Your task to perform on an android device: install app "AliExpress" Image 0: 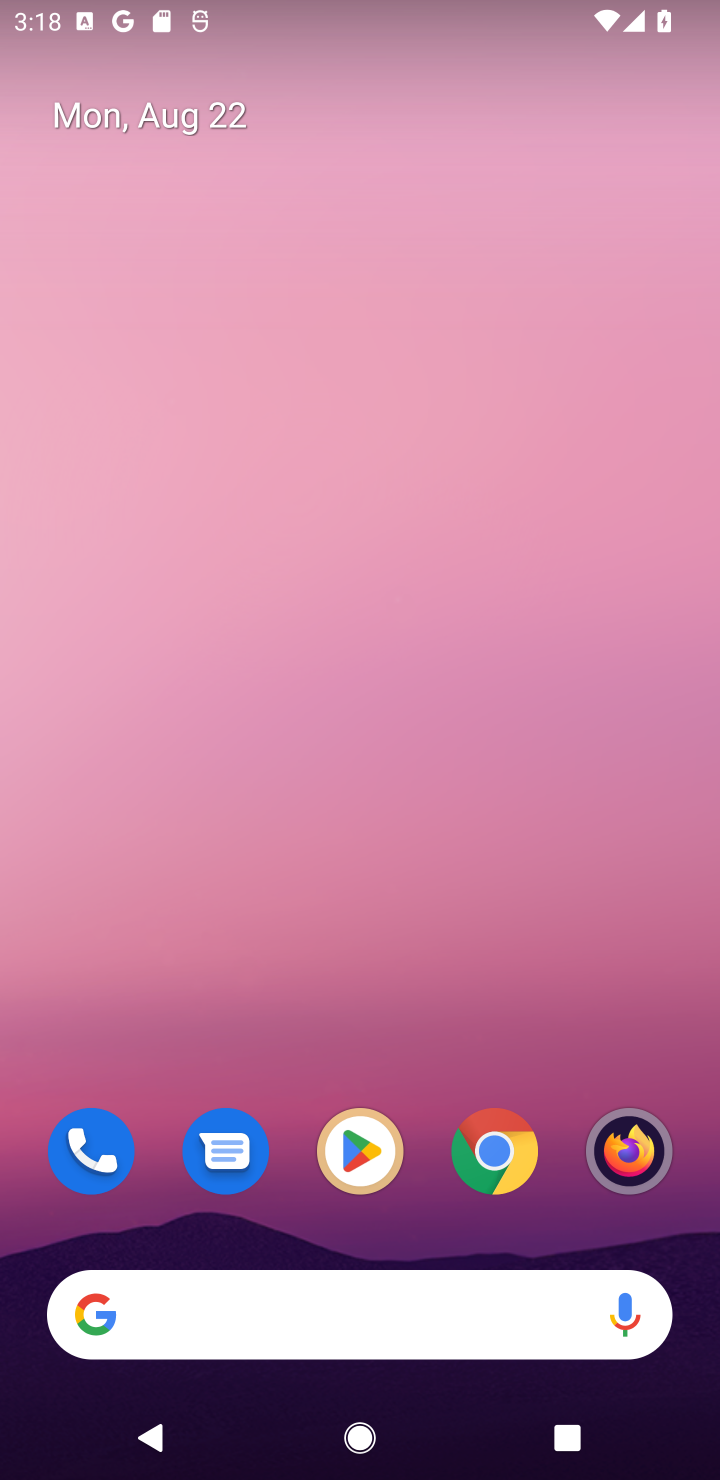
Step 0: press home button
Your task to perform on an android device: install app "AliExpress" Image 1: 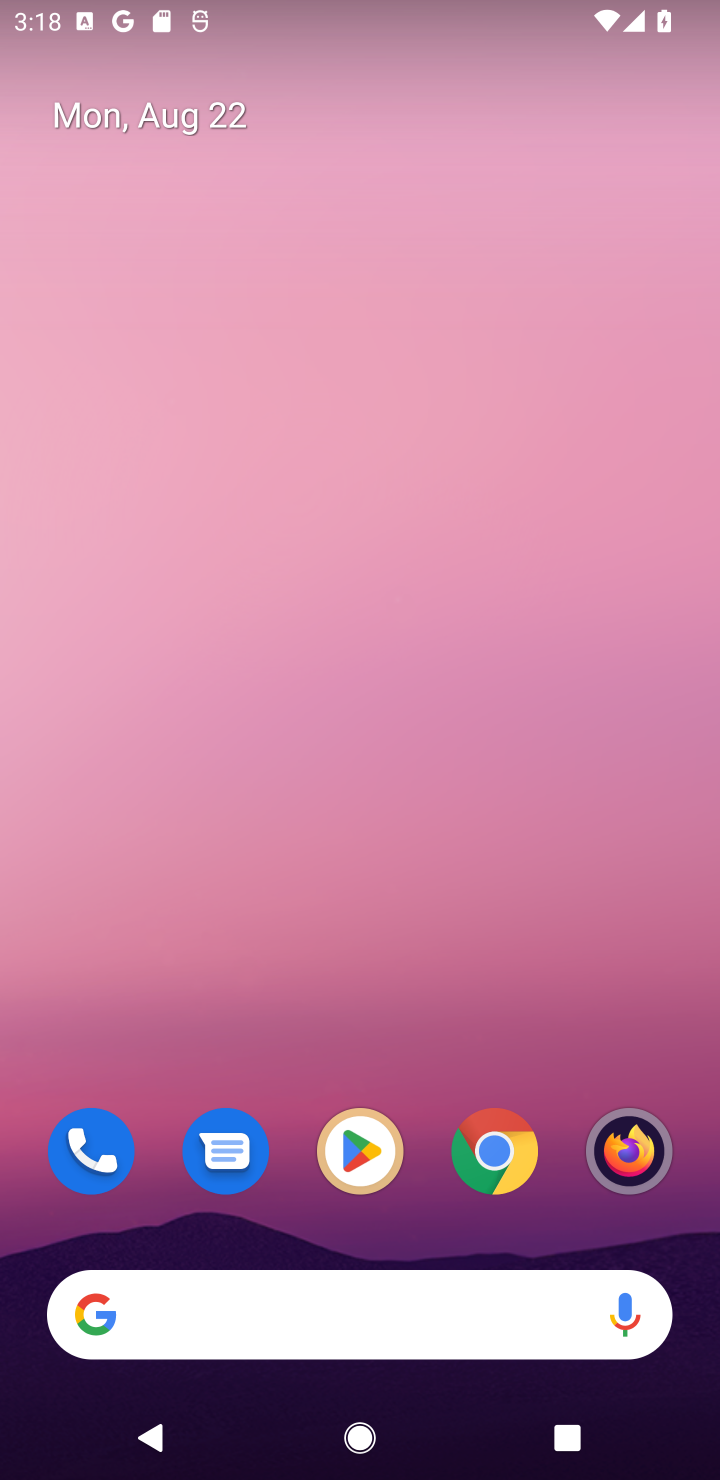
Step 1: click (348, 1148)
Your task to perform on an android device: install app "AliExpress" Image 2: 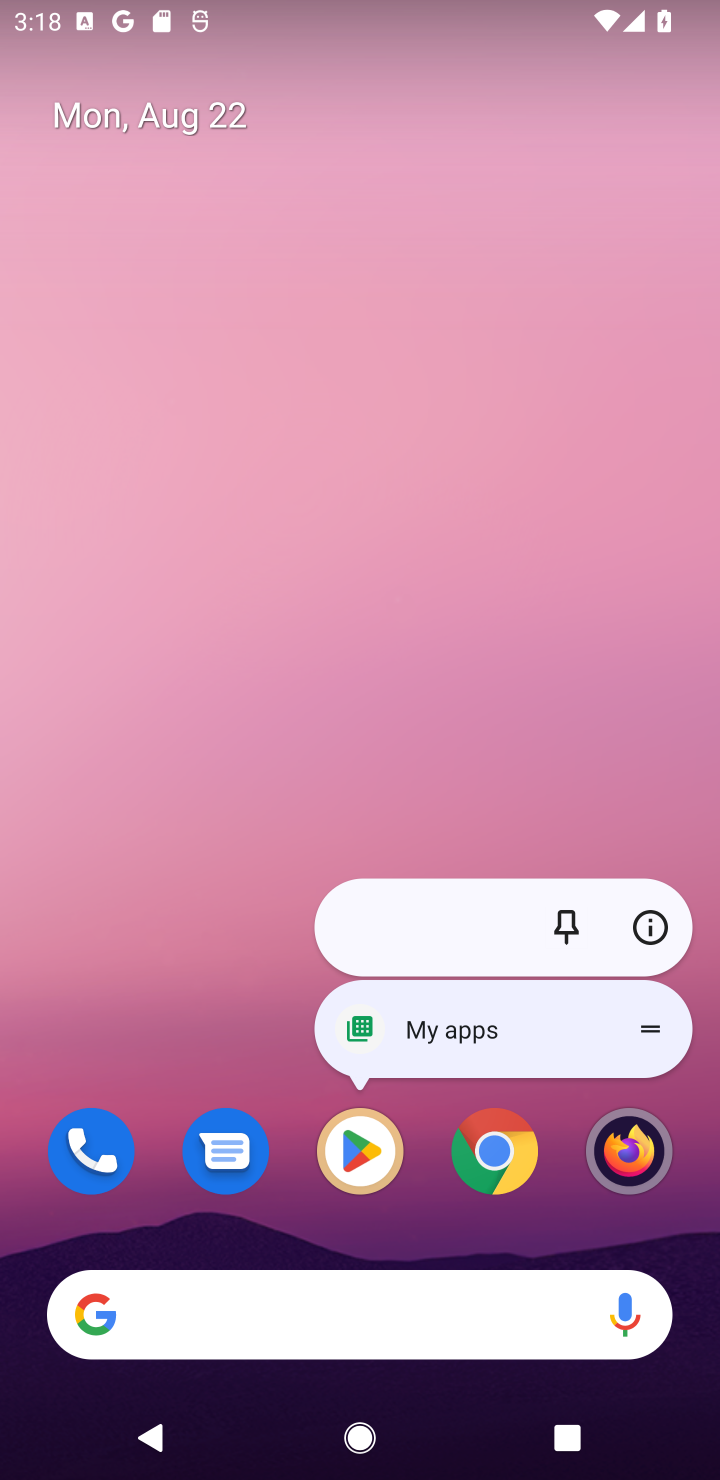
Step 2: click (348, 1155)
Your task to perform on an android device: install app "AliExpress" Image 3: 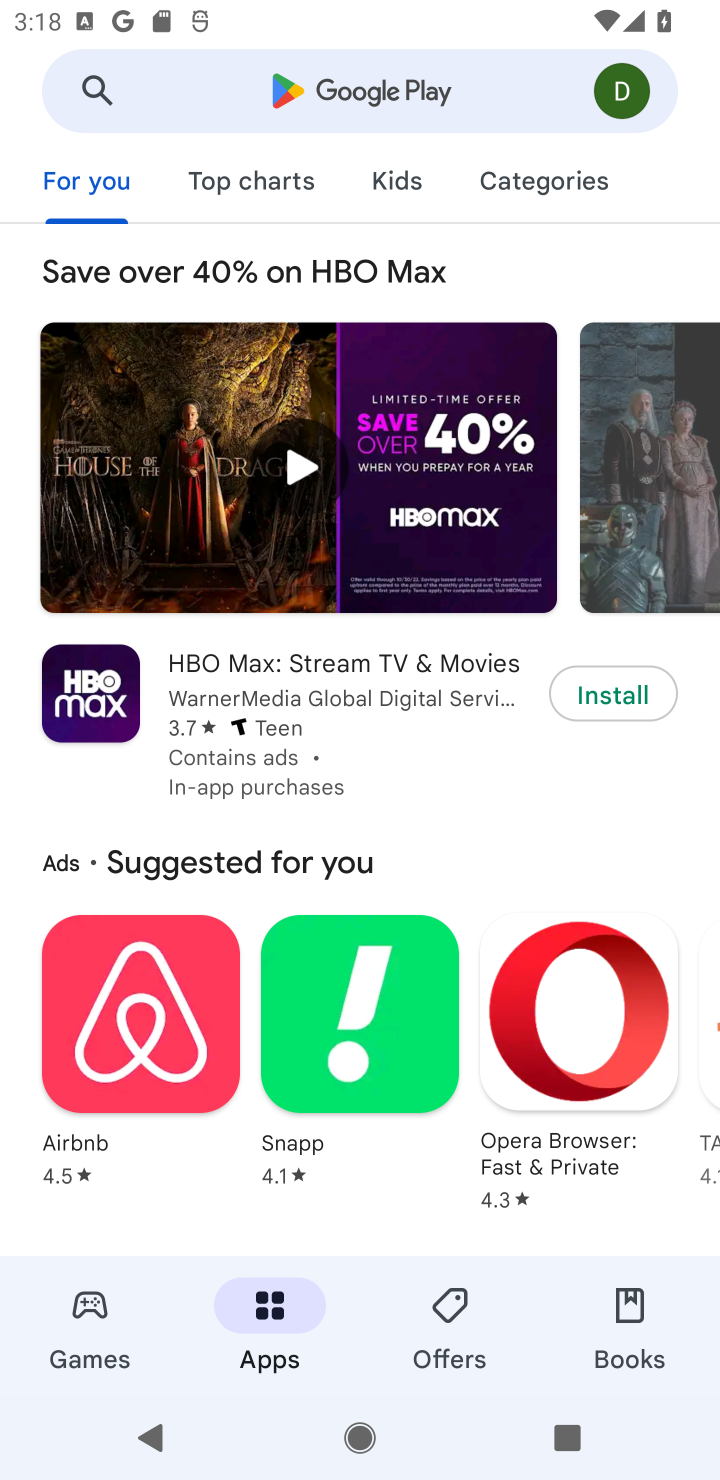
Step 3: click (414, 89)
Your task to perform on an android device: install app "AliExpress" Image 4: 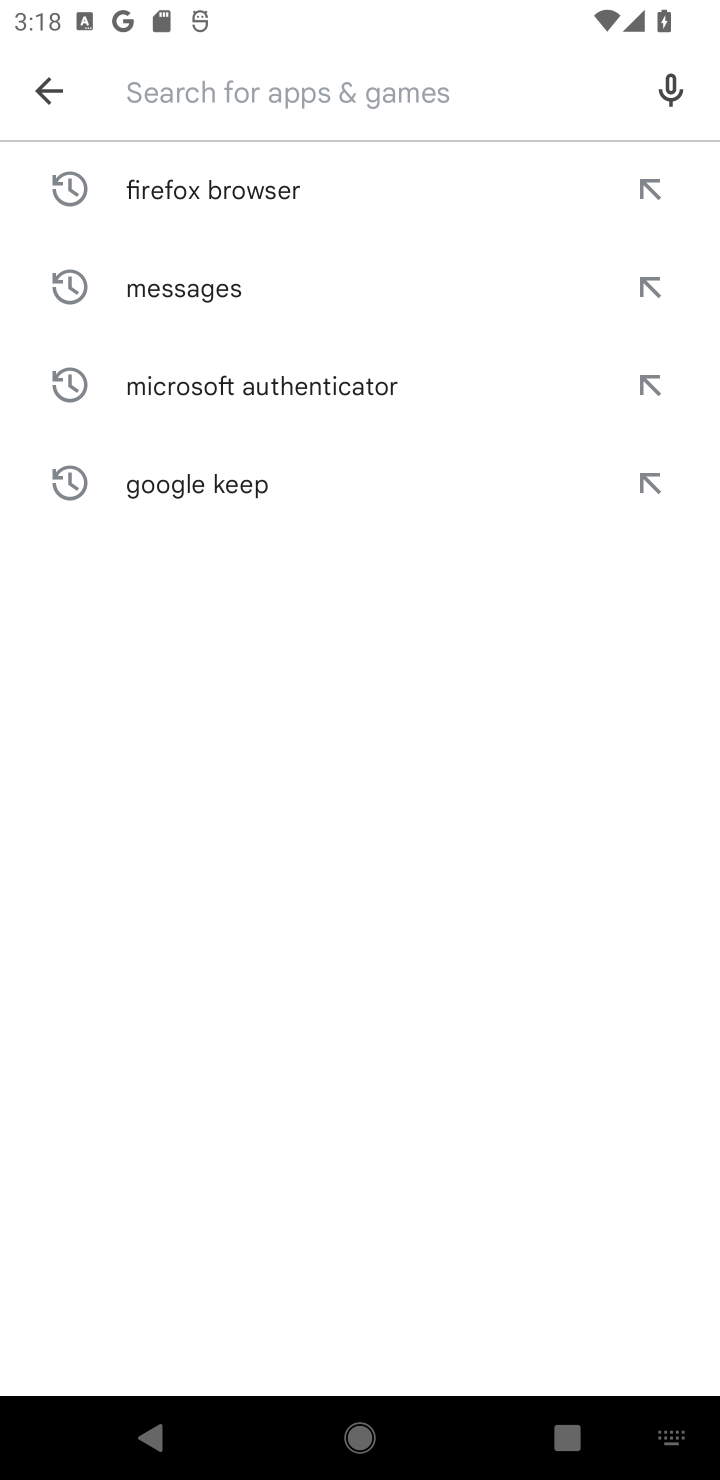
Step 4: type "AliExpress"
Your task to perform on an android device: install app "AliExpress" Image 5: 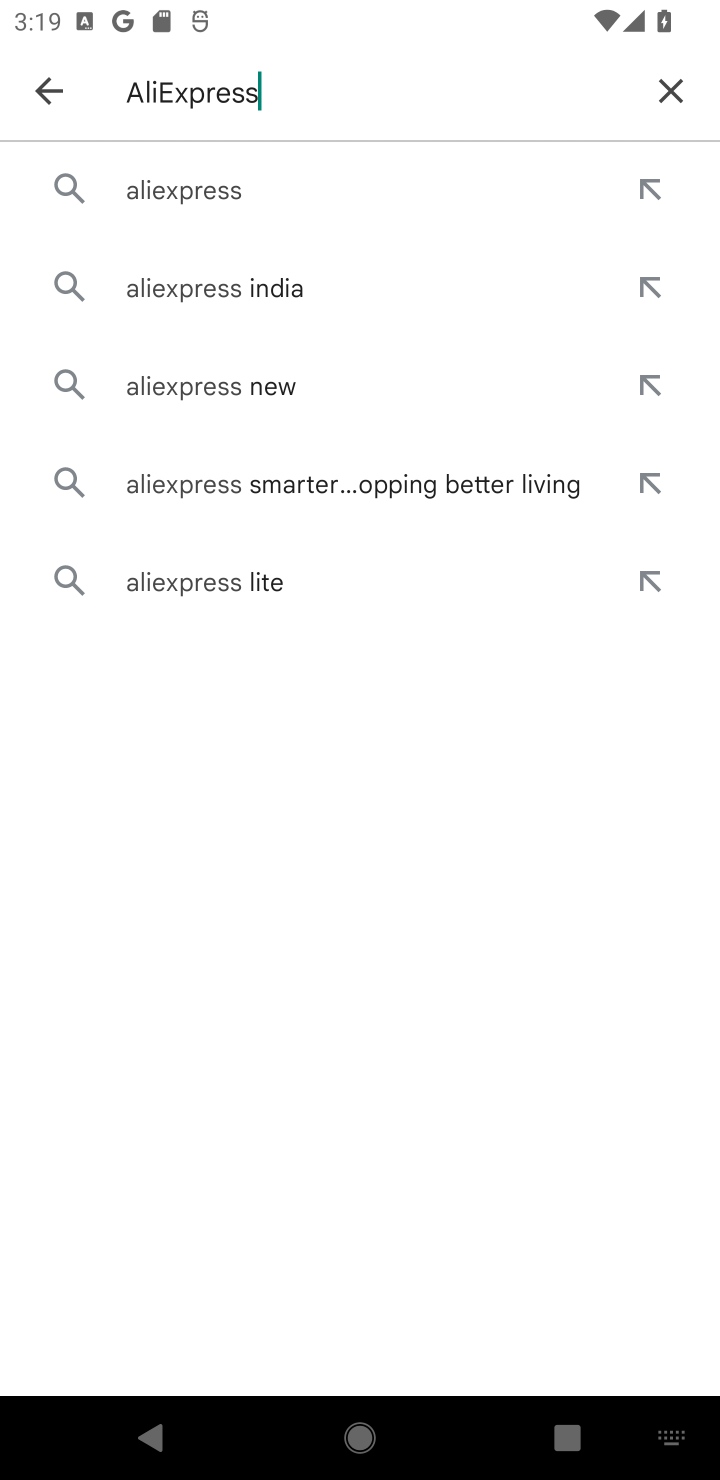
Step 5: click (218, 188)
Your task to perform on an android device: install app "AliExpress" Image 6: 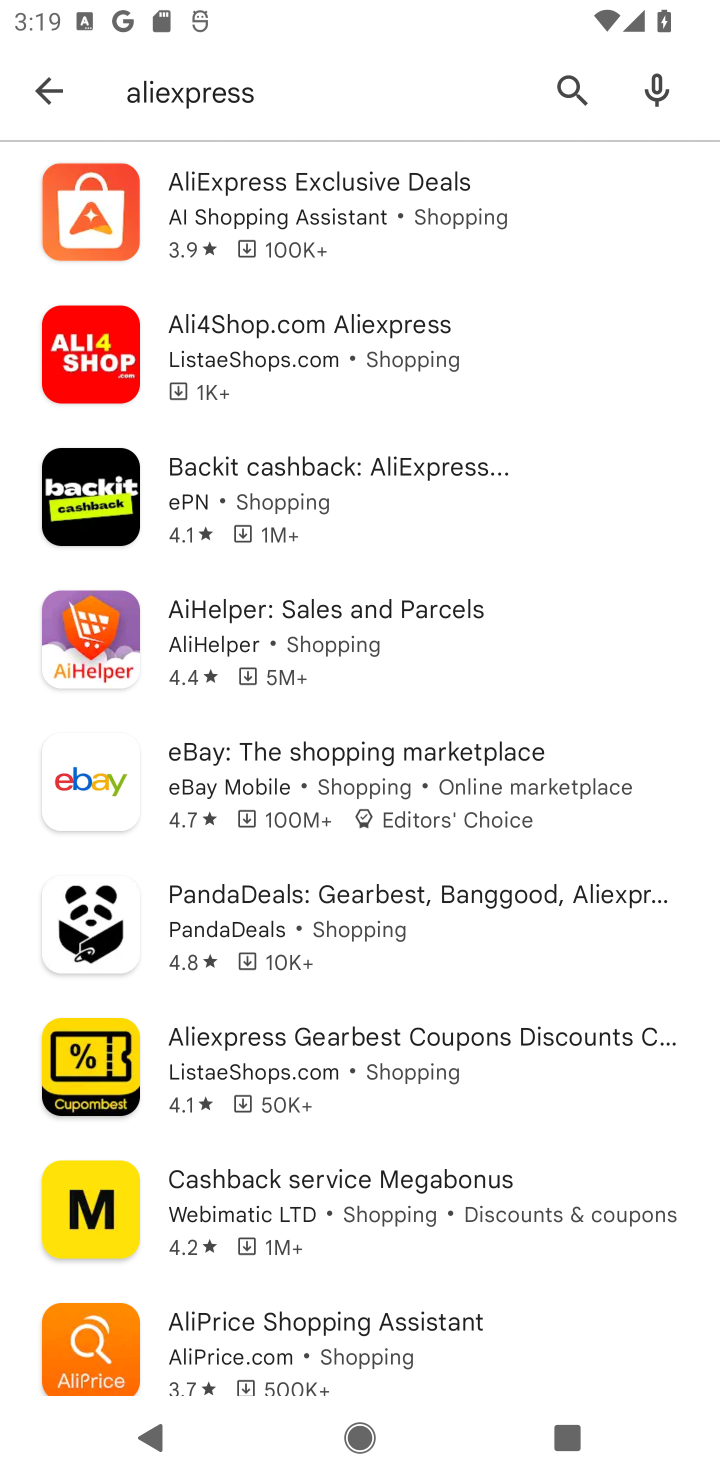
Step 6: click (234, 218)
Your task to perform on an android device: install app "AliExpress" Image 7: 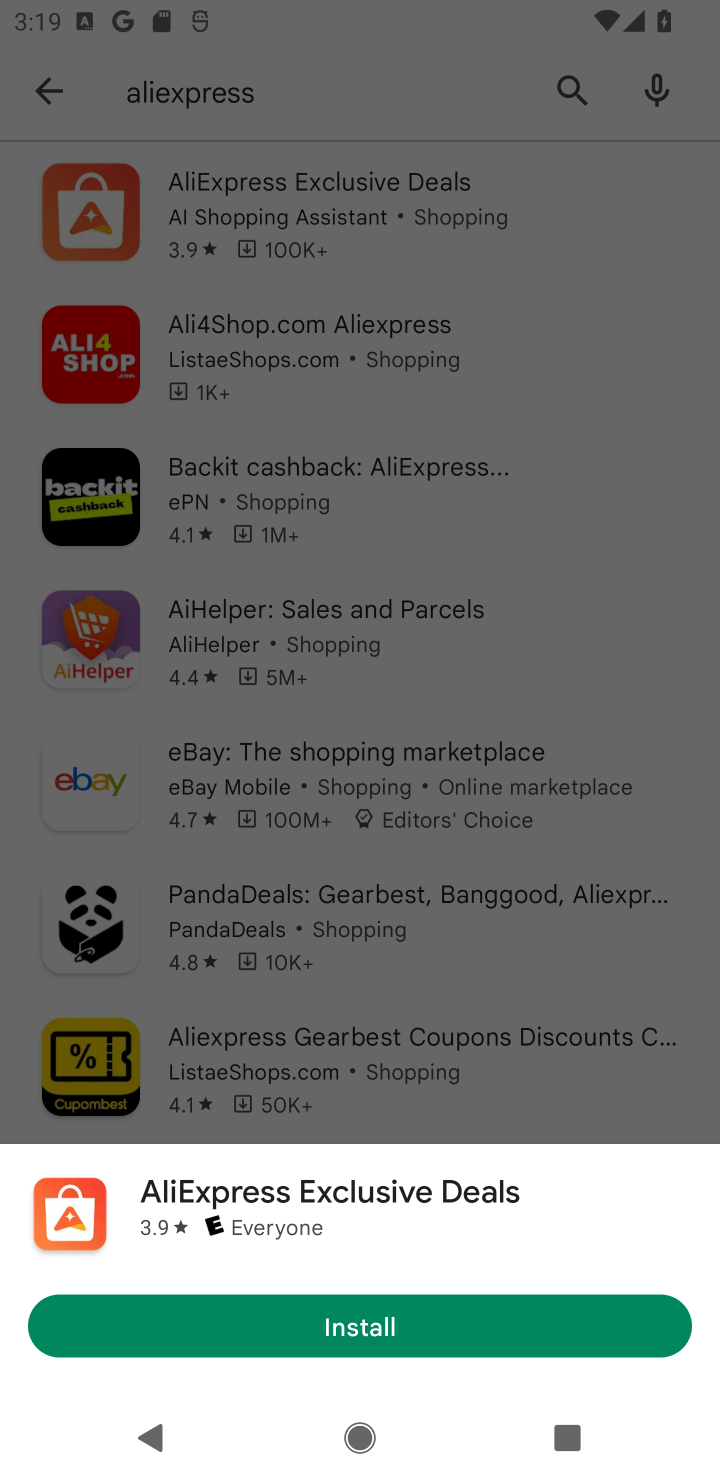
Step 7: click (348, 1316)
Your task to perform on an android device: install app "AliExpress" Image 8: 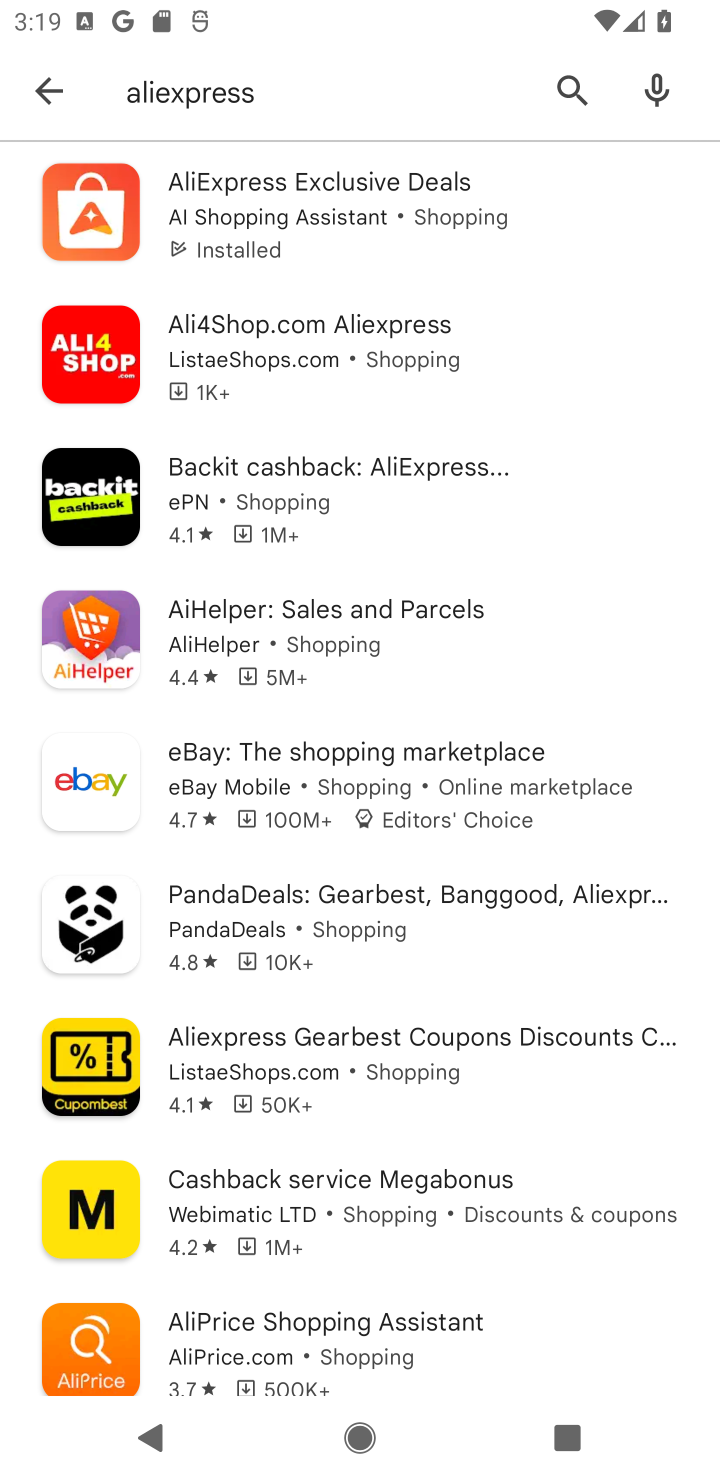
Step 8: task complete